Your task to perform on an android device: What's the weather going to be this weekend? Image 0: 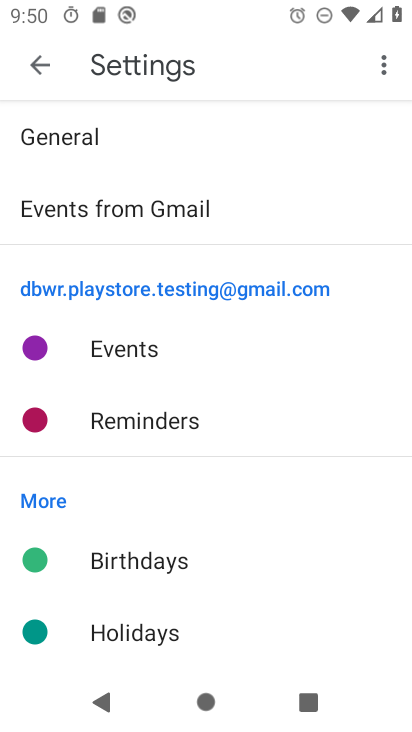
Step 0: press home button
Your task to perform on an android device: What's the weather going to be this weekend? Image 1: 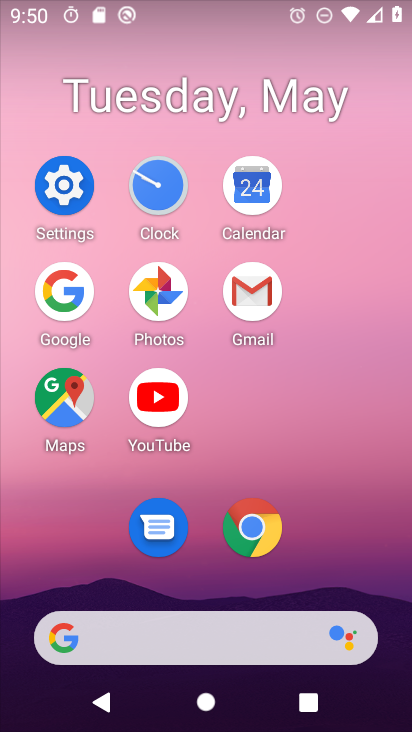
Step 1: click (72, 295)
Your task to perform on an android device: What's the weather going to be this weekend? Image 2: 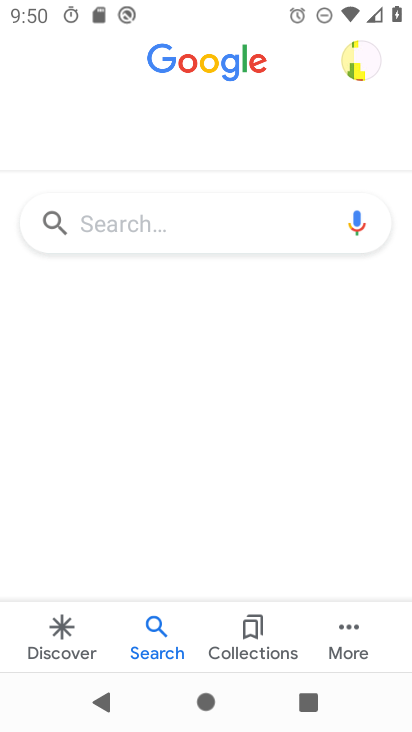
Step 2: click (173, 224)
Your task to perform on an android device: What's the weather going to be this weekend? Image 3: 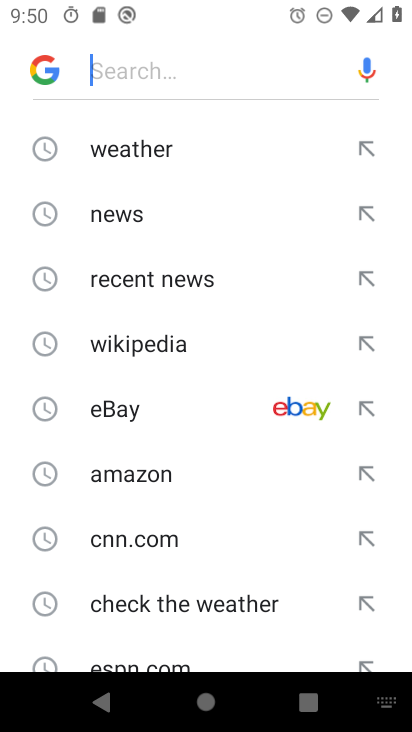
Step 3: click (164, 137)
Your task to perform on an android device: What's the weather going to be this weekend? Image 4: 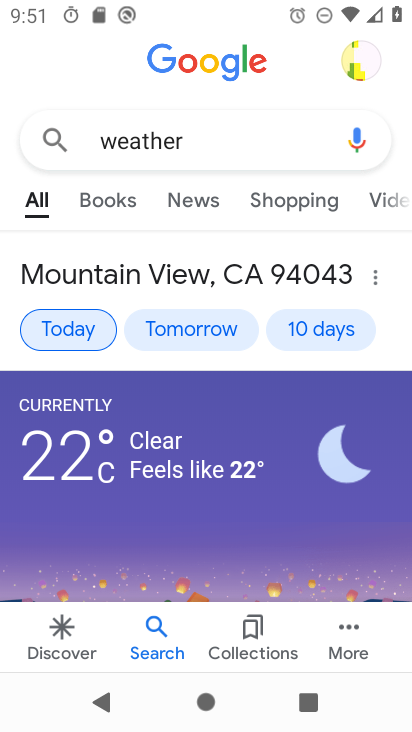
Step 4: click (334, 337)
Your task to perform on an android device: What's the weather going to be this weekend? Image 5: 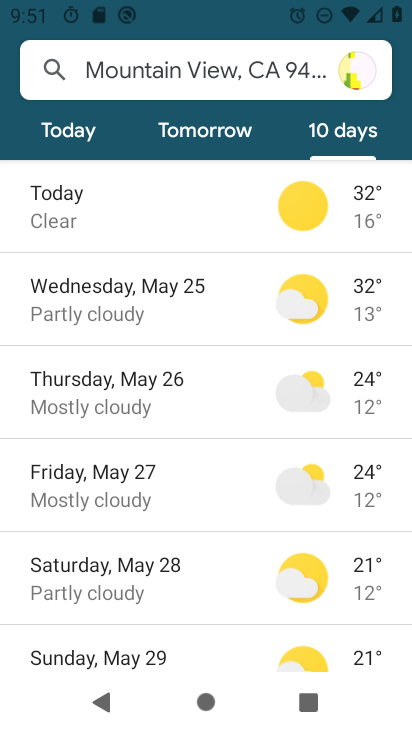
Step 5: click (137, 584)
Your task to perform on an android device: What's the weather going to be this weekend? Image 6: 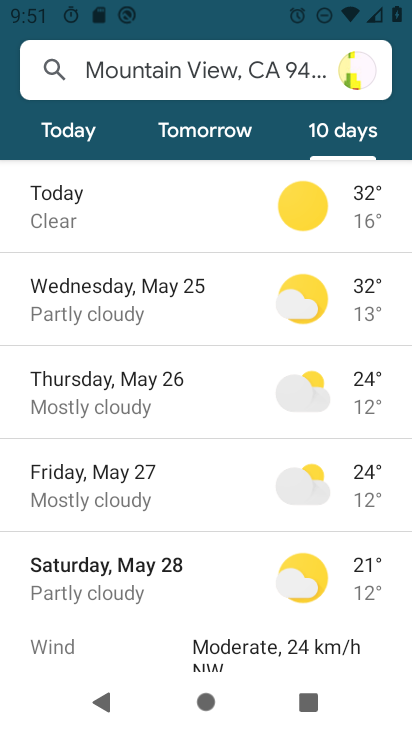
Step 6: task complete